Your task to perform on an android device: Open the map Image 0: 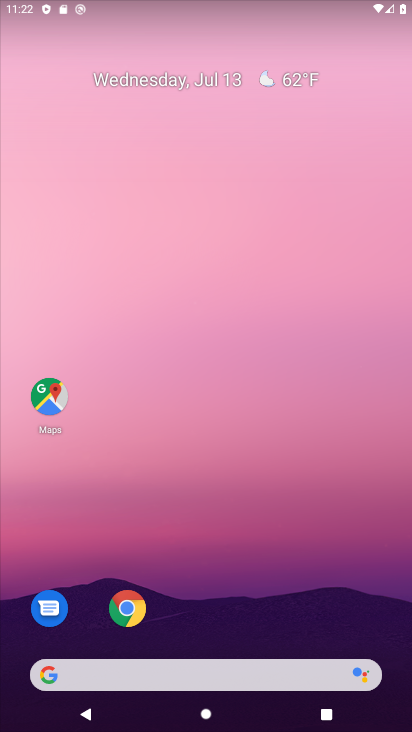
Step 0: drag from (238, 726) to (243, 231)
Your task to perform on an android device: Open the map Image 1: 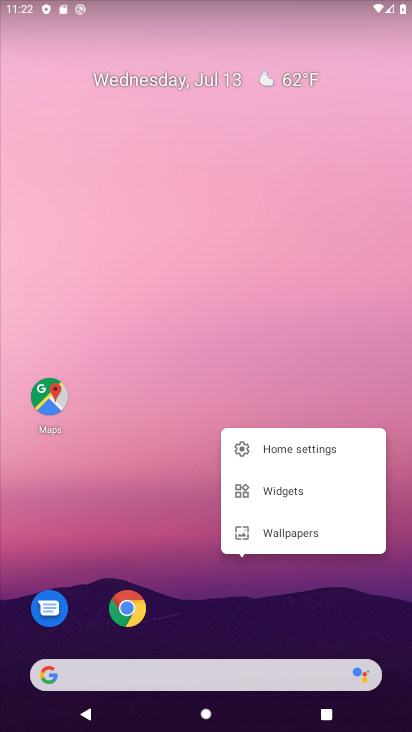
Step 1: click (194, 363)
Your task to perform on an android device: Open the map Image 2: 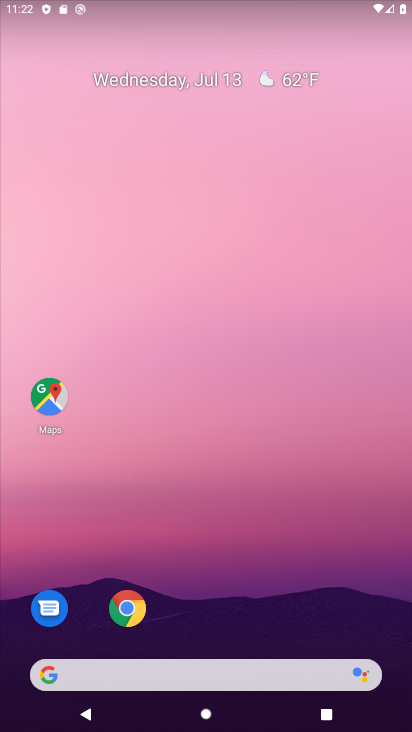
Step 2: click (50, 396)
Your task to perform on an android device: Open the map Image 3: 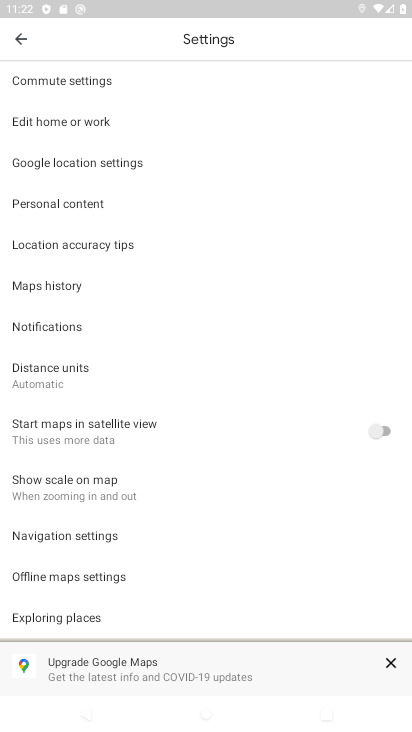
Step 3: click (21, 38)
Your task to perform on an android device: Open the map Image 4: 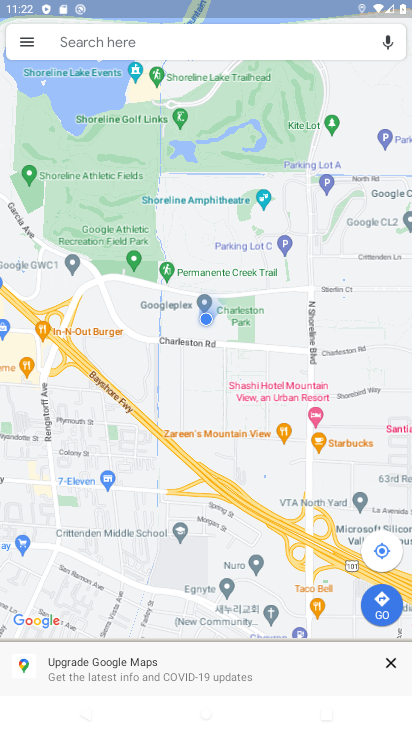
Step 4: task complete